Your task to perform on an android device: Open Amazon Image 0: 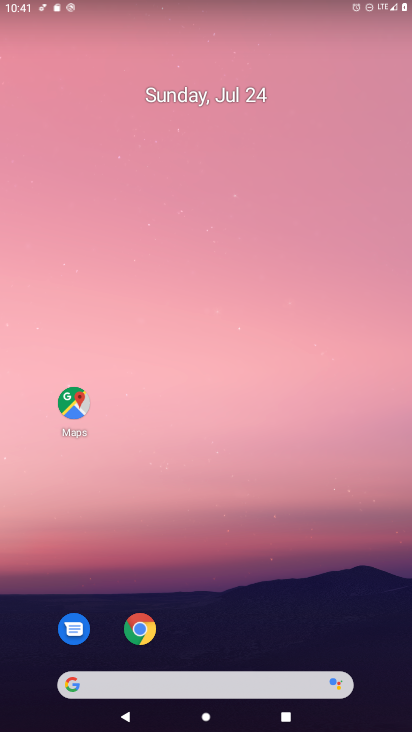
Step 0: drag from (371, 652) to (124, 33)
Your task to perform on an android device: Open Amazon Image 1: 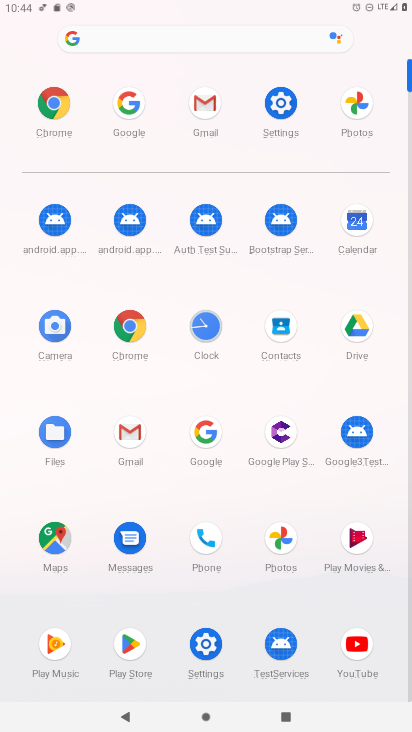
Step 1: click (208, 437)
Your task to perform on an android device: Open Amazon Image 2: 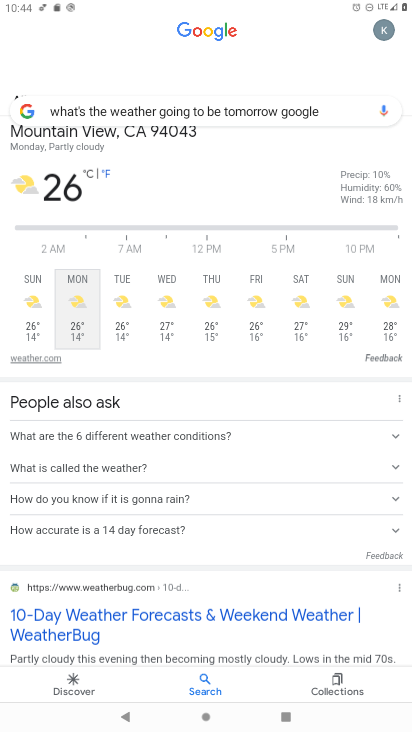
Step 2: press back button
Your task to perform on an android device: Open Amazon Image 3: 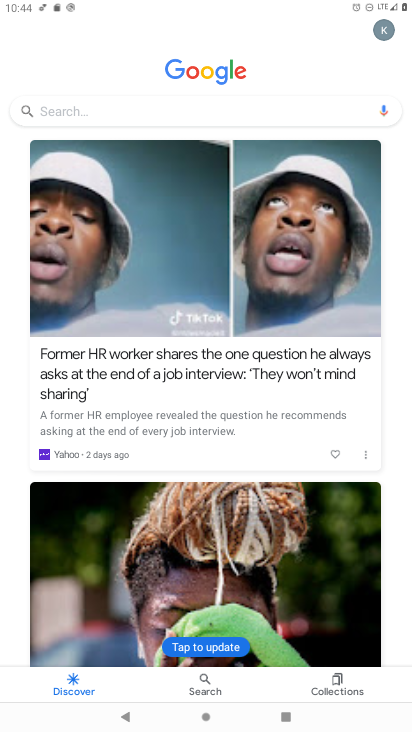
Step 3: click (131, 100)
Your task to perform on an android device: Open Amazon Image 4: 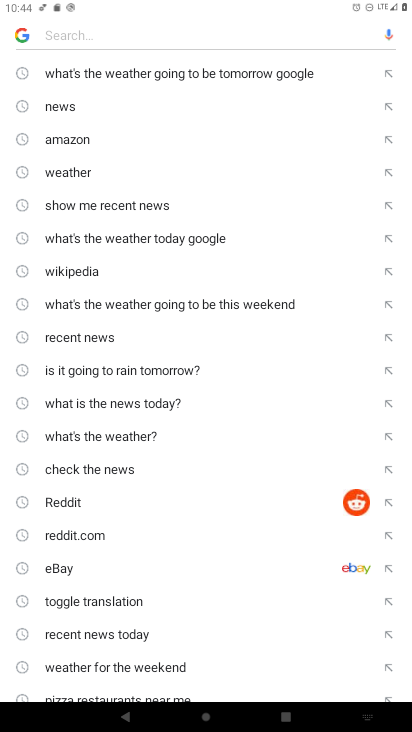
Step 4: click (92, 139)
Your task to perform on an android device: Open Amazon Image 5: 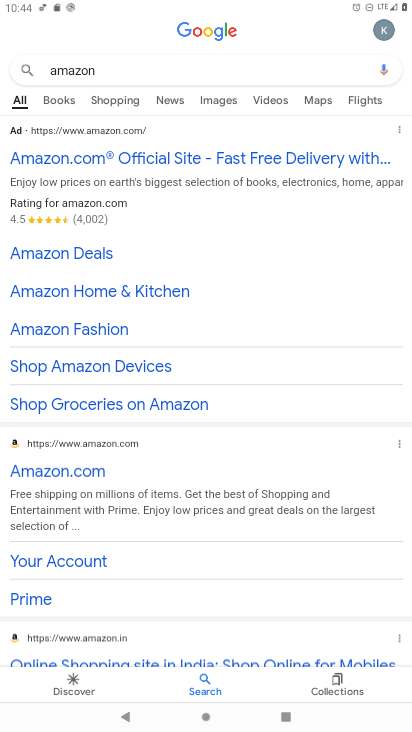
Step 5: task complete